Your task to perform on an android device: Open wifi settings Image 0: 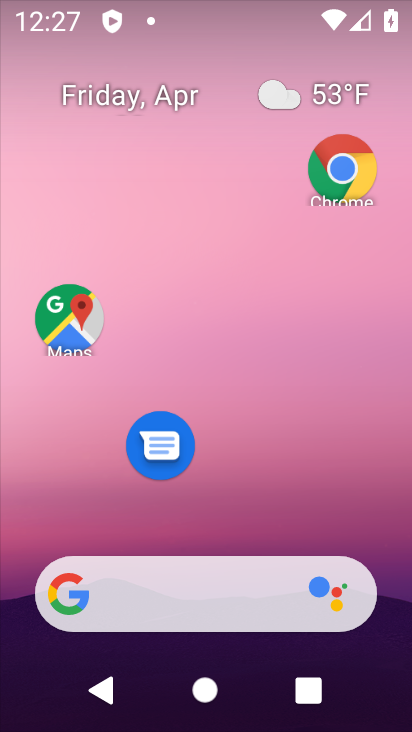
Step 0: drag from (313, 528) to (255, 3)
Your task to perform on an android device: Open wifi settings Image 1: 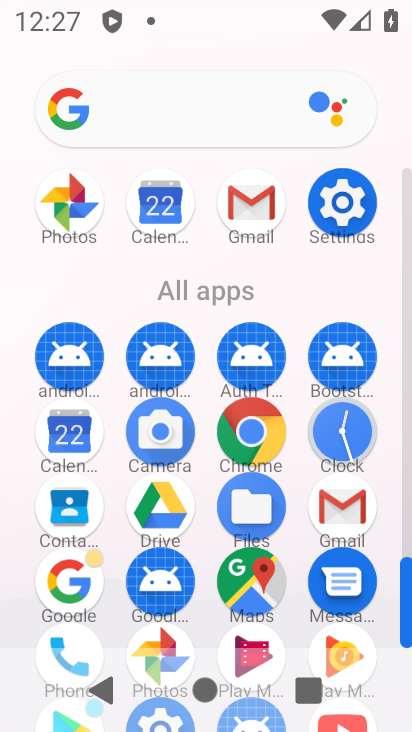
Step 1: click (342, 180)
Your task to perform on an android device: Open wifi settings Image 2: 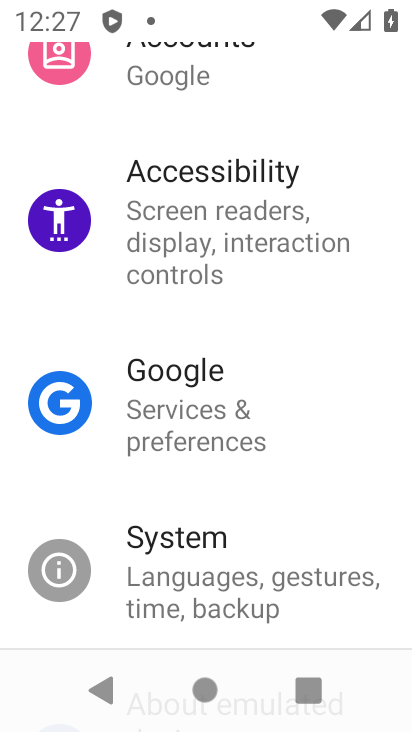
Step 2: drag from (261, 232) to (225, 542)
Your task to perform on an android device: Open wifi settings Image 3: 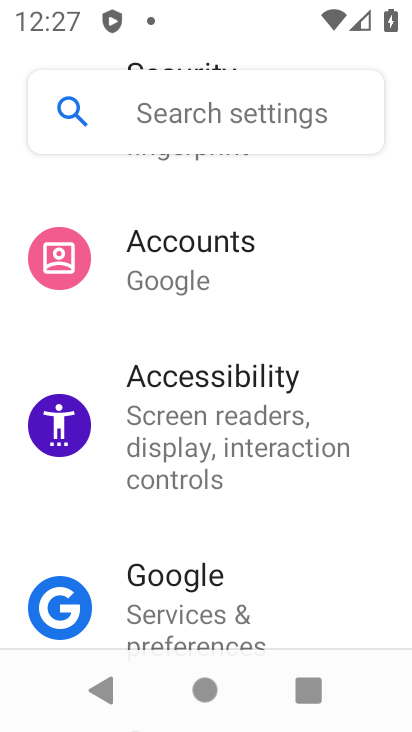
Step 3: drag from (286, 283) to (282, 668)
Your task to perform on an android device: Open wifi settings Image 4: 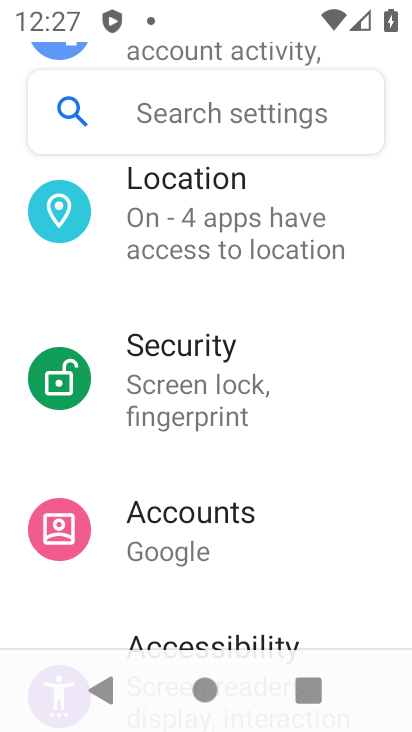
Step 4: drag from (232, 207) to (284, 650)
Your task to perform on an android device: Open wifi settings Image 5: 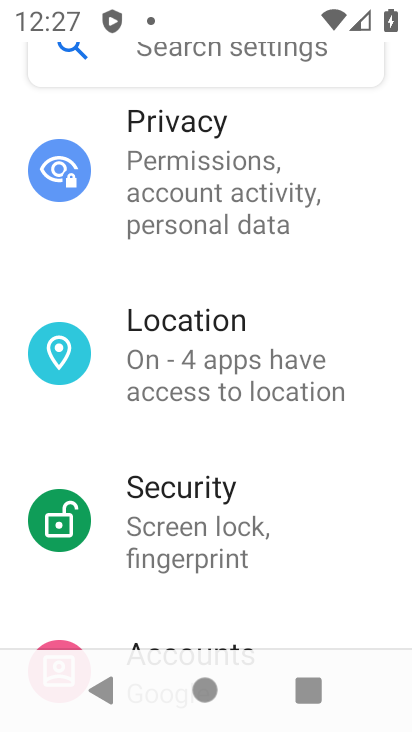
Step 5: drag from (276, 381) to (247, 538)
Your task to perform on an android device: Open wifi settings Image 6: 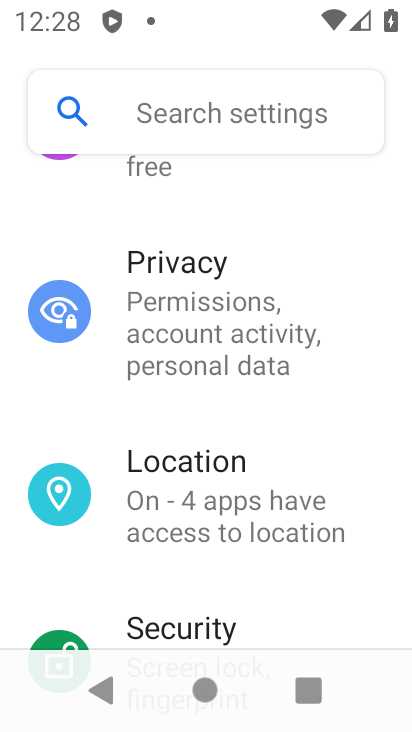
Step 6: drag from (226, 213) to (223, 607)
Your task to perform on an android device: Open wifi settings Image 7: 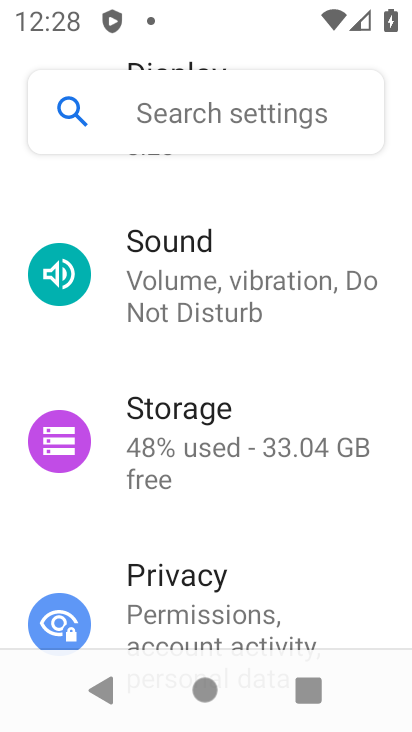
Step 7: drag from (248, 190) to (219, 567)
Your task to perform on an android device: Open wifi settings Image 8: 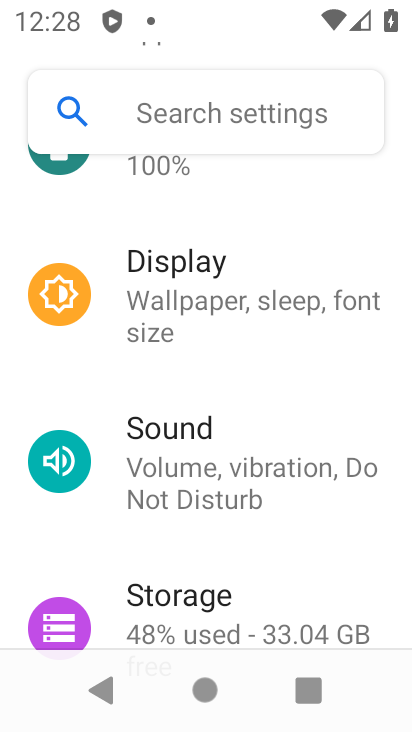
Step 8: drag from (235, 199) to (208, 565)
Your task to perform on an android device: Open wifi settings Image 9: 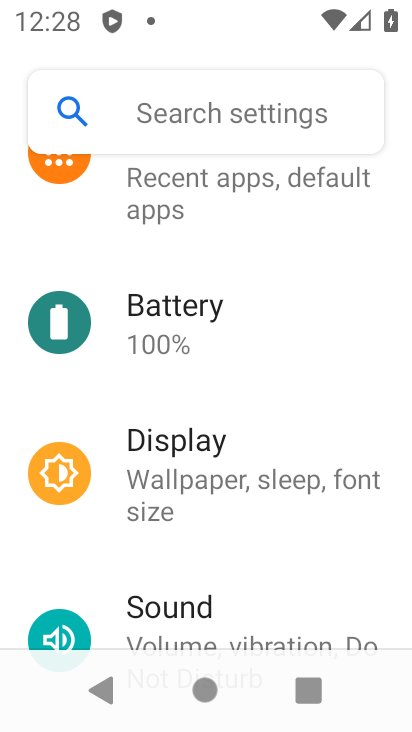
Step 9: drag from (259, 248) to (274, 592)
Your task to perform on an android device: Open wifi settings Image 10: 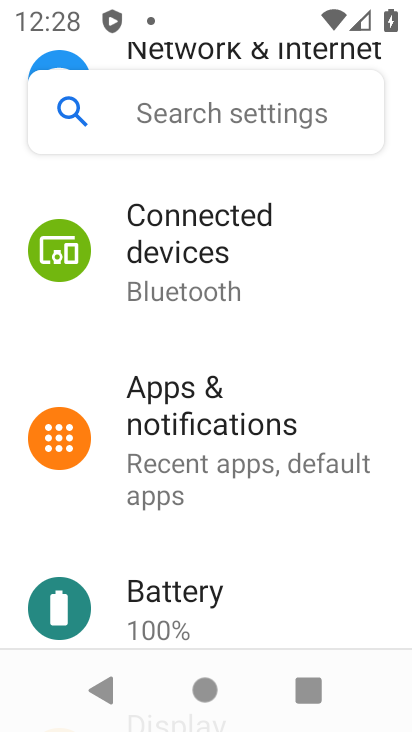
Step 10: drag from (245, 273) to (297, 526)
Your task to perform on an android device: Open wifi settings Image 11: 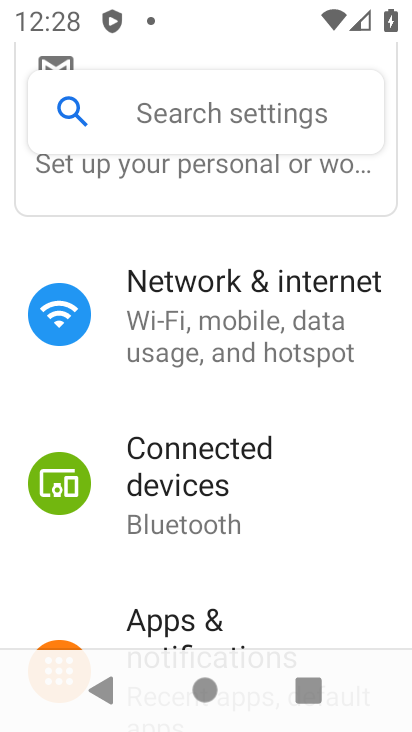
Step 11: click (264, 346)
Your task to perform on an android device: Open wifi settings Image 12: 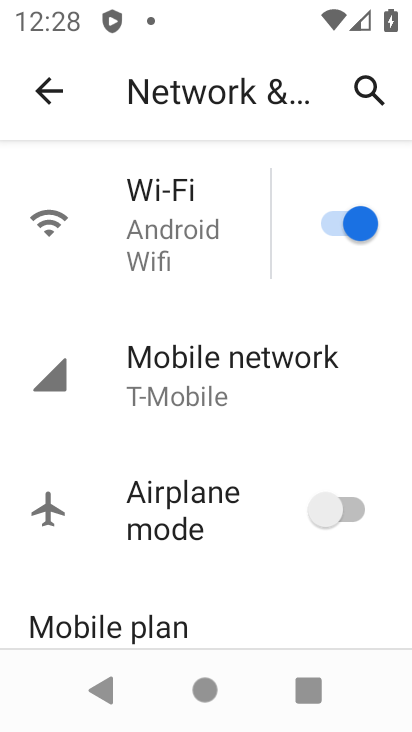
Step 12: task complete